Your task to perform on an android device: Open calendar and show me the third week of next month Image 0: 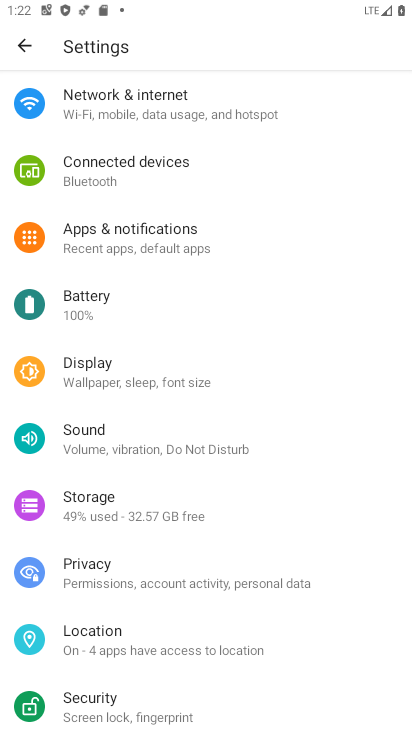
Step 0: press home button
Your task to perform on an android device: Open calendar and show me the third week of next month Image 1: 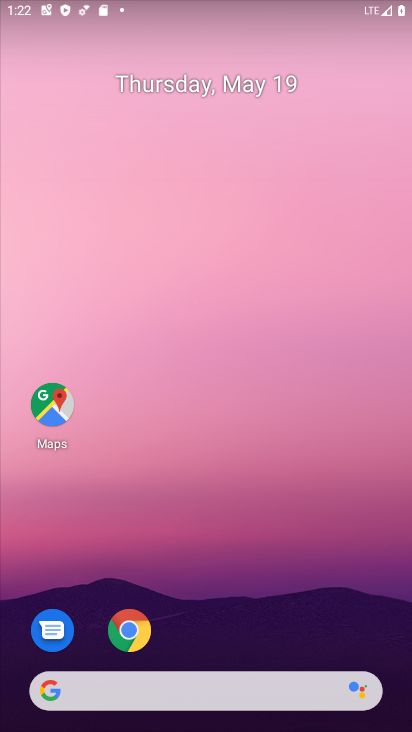
Step 1: drag from (207, 662) to (106, 76)
Your task to perform on an android device: Open calendar and show me the third week of next month Image 2: 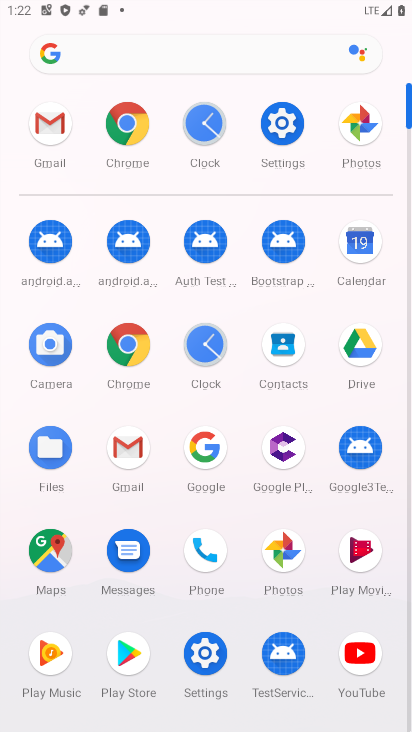
Step 2: click (375, 247)
Your task to perform on an android device: Open calendar and show me the third week of next month Image 3: 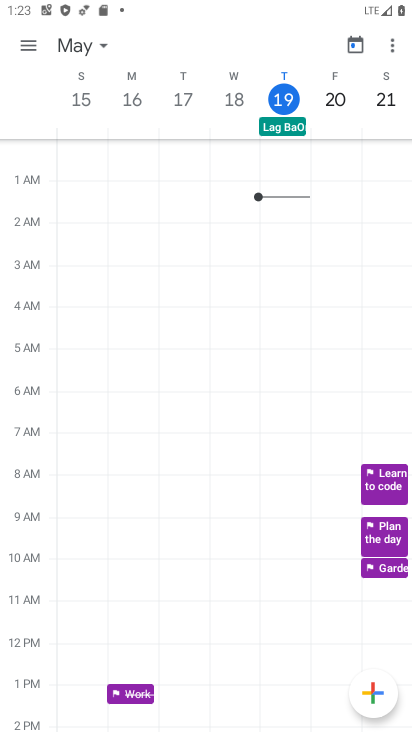
Step 3: task complete